Your task to perform on an android device: toggle airplane mode Image 0: 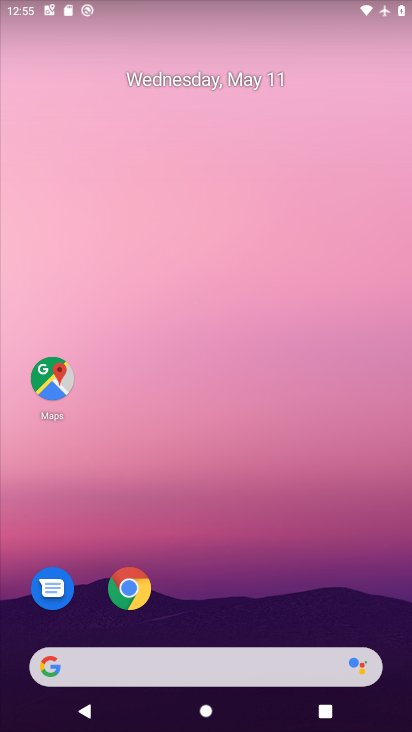
Step 0: drag from (198, 642) to (301, 191)
Your task to perform on an android device: toggle airplane mode Image 1: 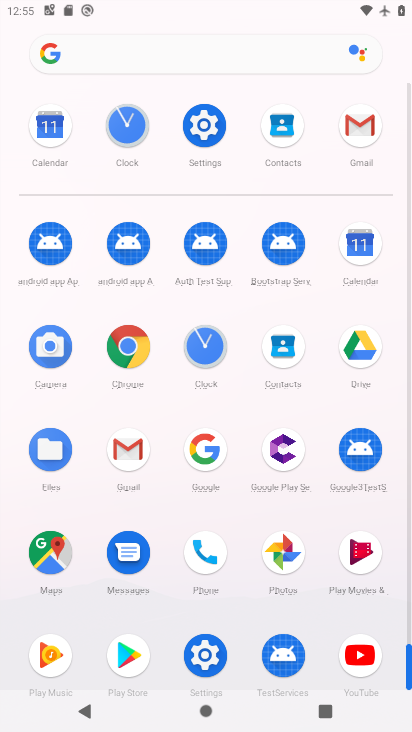
Step 1: click (210, 122)
Your task to perform on an android device: toggle airplane mode Image 2: 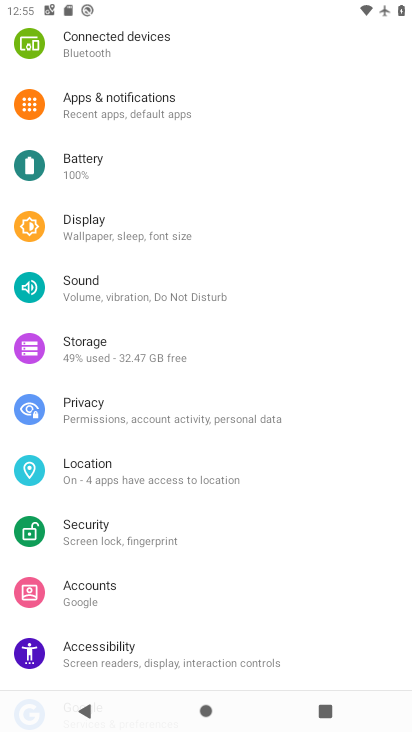
Step 2: drag from (124, 48) to (126, 420)
Your task to perform on an android device: toggle airplane mode Image 3: 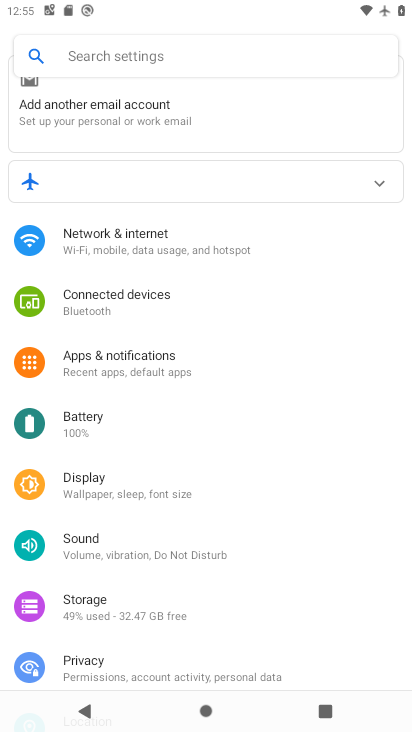
Step 3: click (152, 238)
Your task to perform on an android device: toggle airplane mode Image 4: 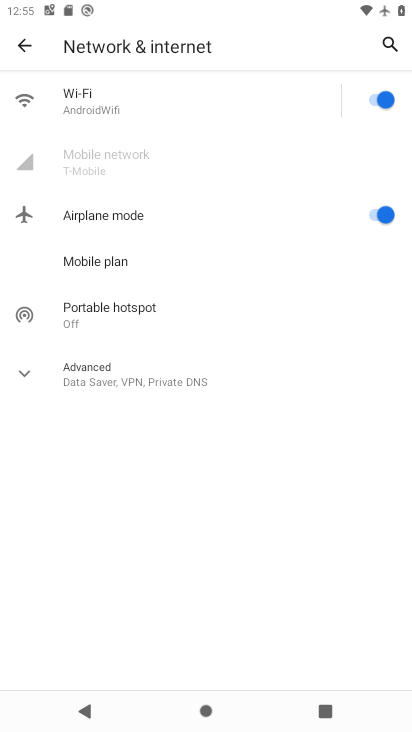
Step 4: click (380, 218)
Your task to perform on an android device: toggle airplane mode Image 5: 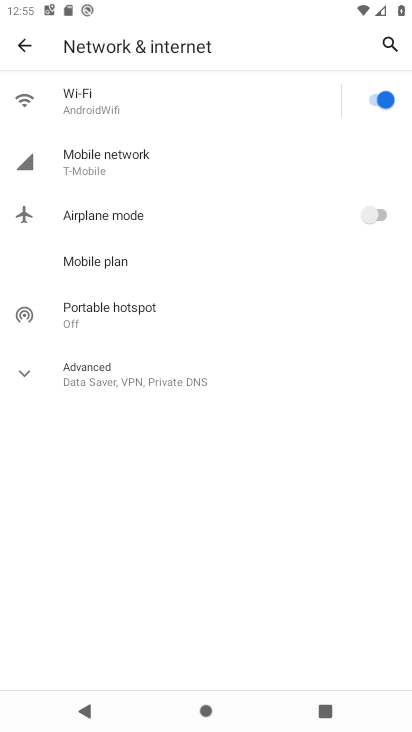
Step 5: task complete